Your task to perform on an android device: turn on data saver in the chrome app Image 0: 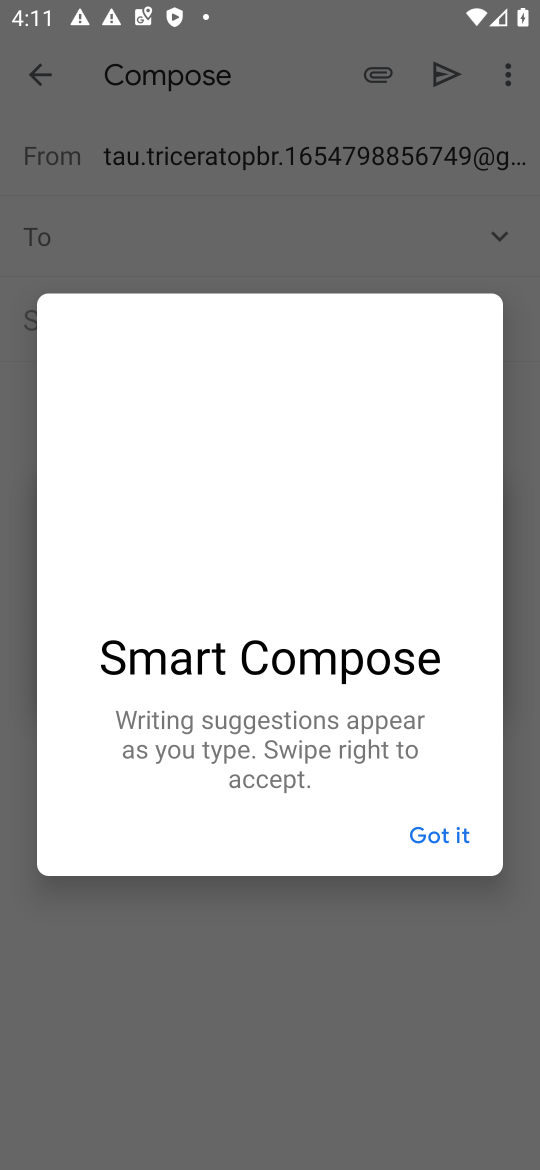
Step 0: press home button
Your task to perform on an android device: turn on data saver in the chrome app Image 1: 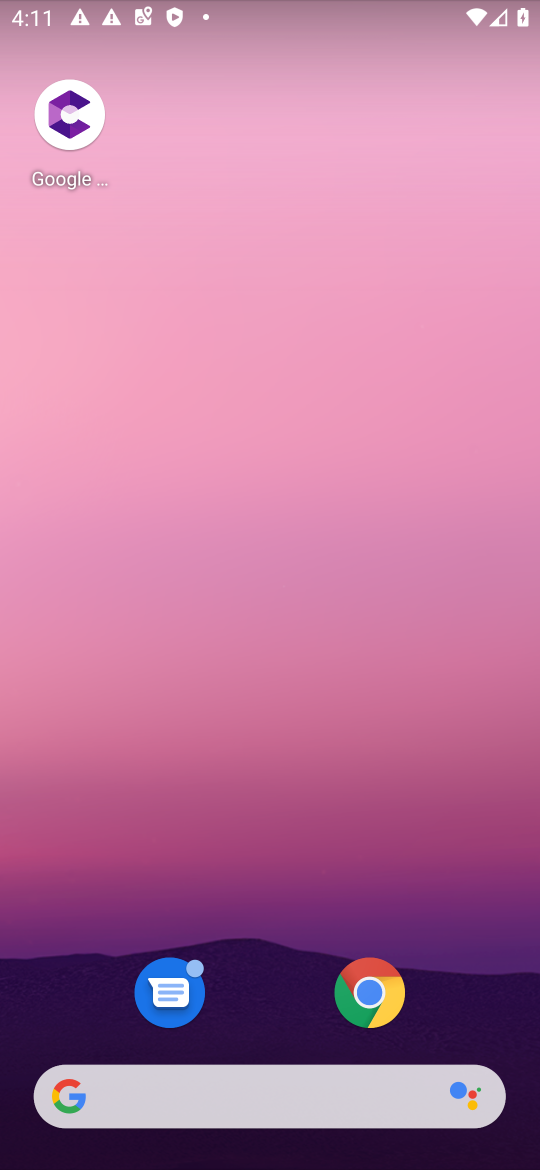
Step 1: drag from (249, 1108) to (168, 55)
Your task to perform on an android device: turn on data saver in the chrome app Image 2: 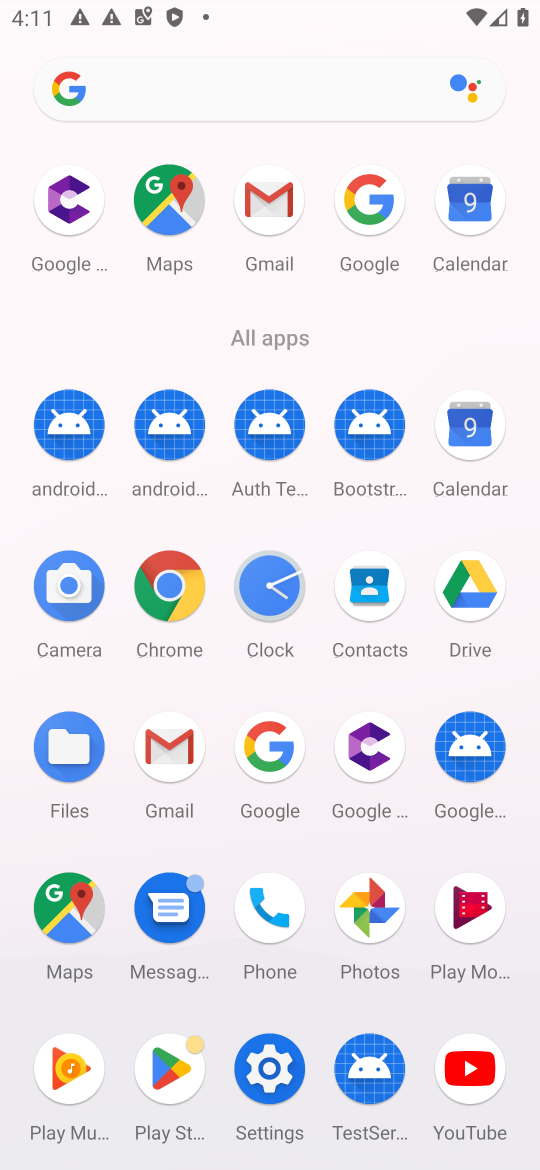
Step 2: click (156, 570)
Your task to perform on an android device: turn on data saver in the chrome app Image 3: 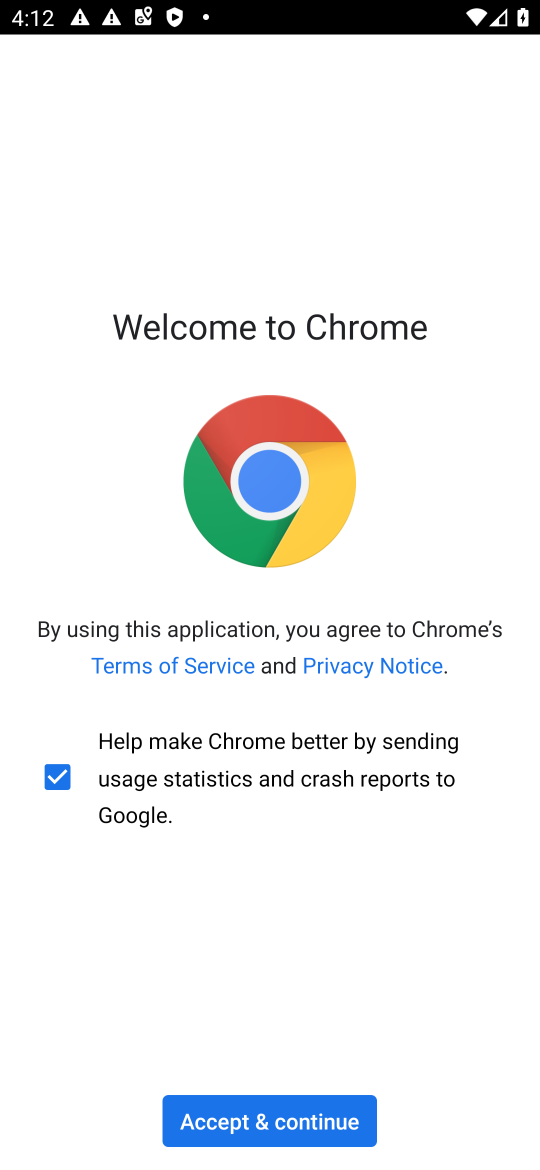
Step 3: click (262, 1139)
Your task to perform on an android device: turn on data saver in the chrome app Image 4: 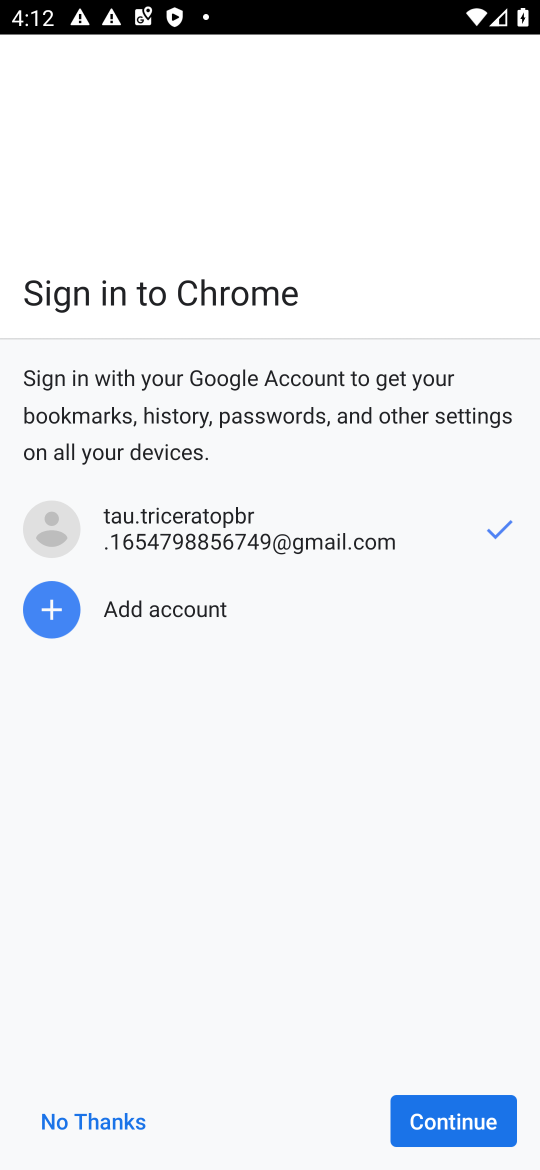
Step 4: click (112, 1114)
Your task to perform on an android device: turn on data saver in the chrome app Image 5: 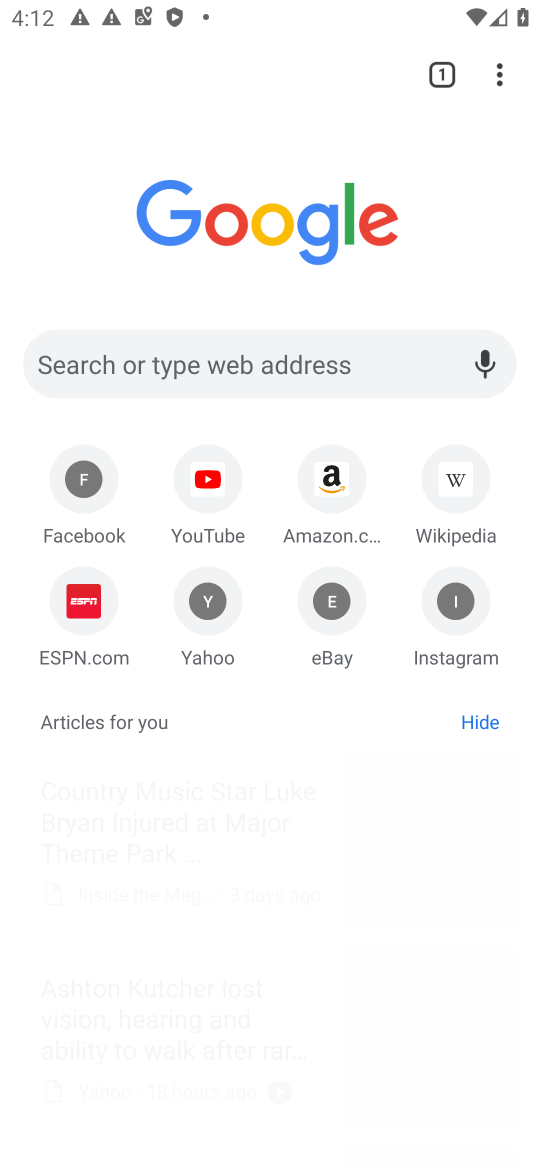
Step 5: click (505, 67)
Your task to perform on an android device: turn on data saver in the chrome app Image 6: 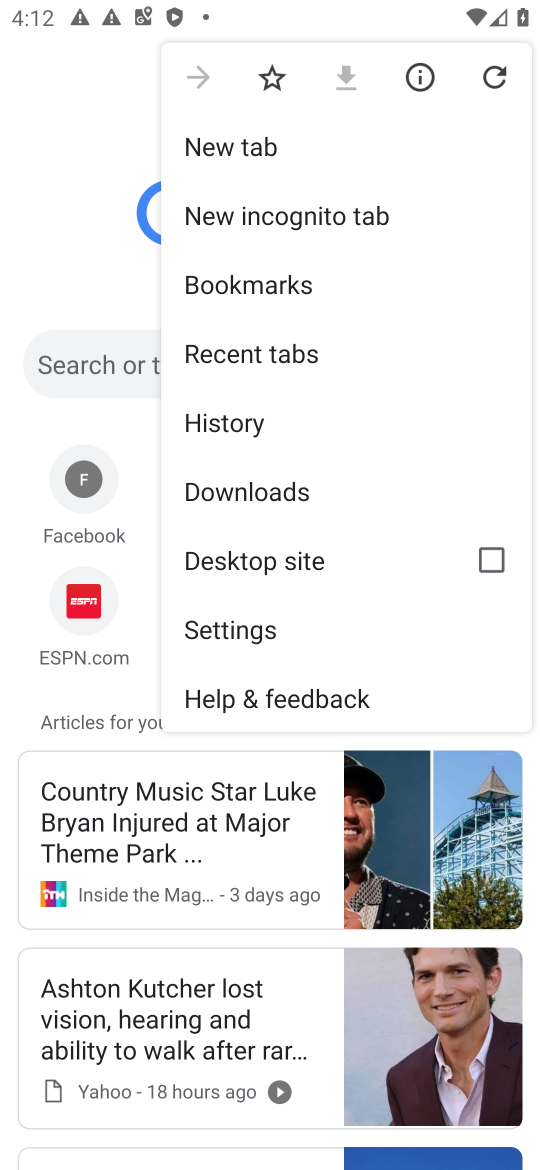
Step 6: click (225, 623)
Your task to perform on an android device: turn on data saver in the chrome app Image 7: 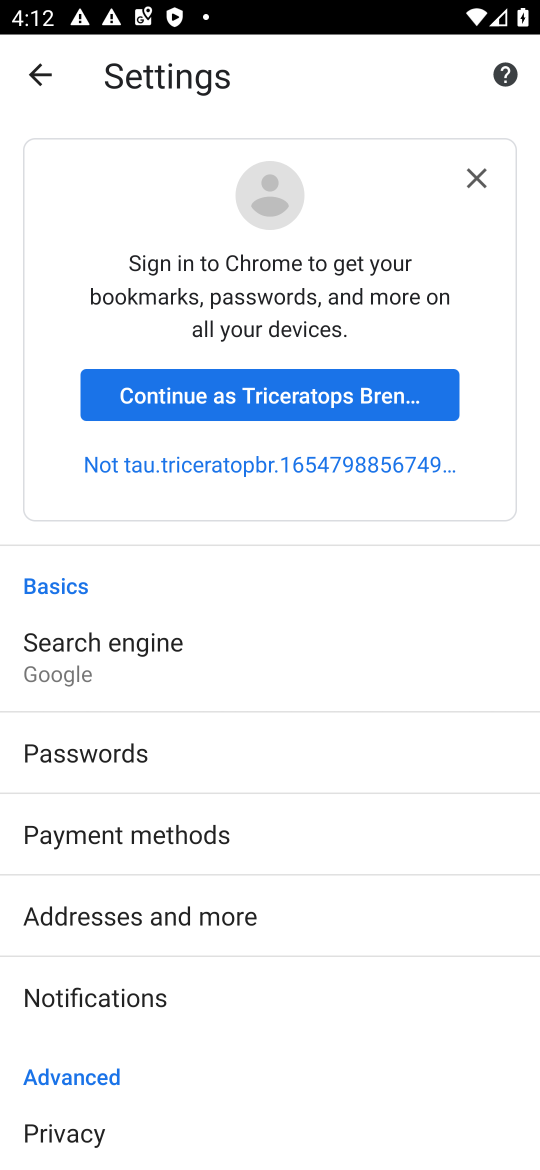
Step 7: drag from (413, 1065) to (404, 540)
Your task to perform on an android device: turn on data saver in the chrome app Image 8: 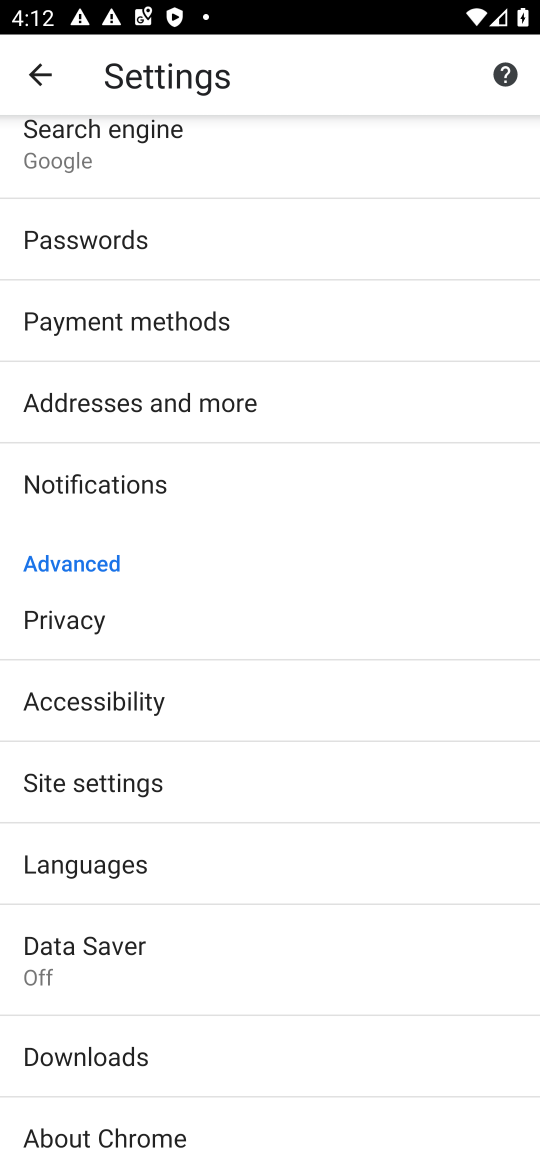
Step 8: click (139, 917)
Your task to perform on an android device: turn on data saver in the chrome app Image 9: 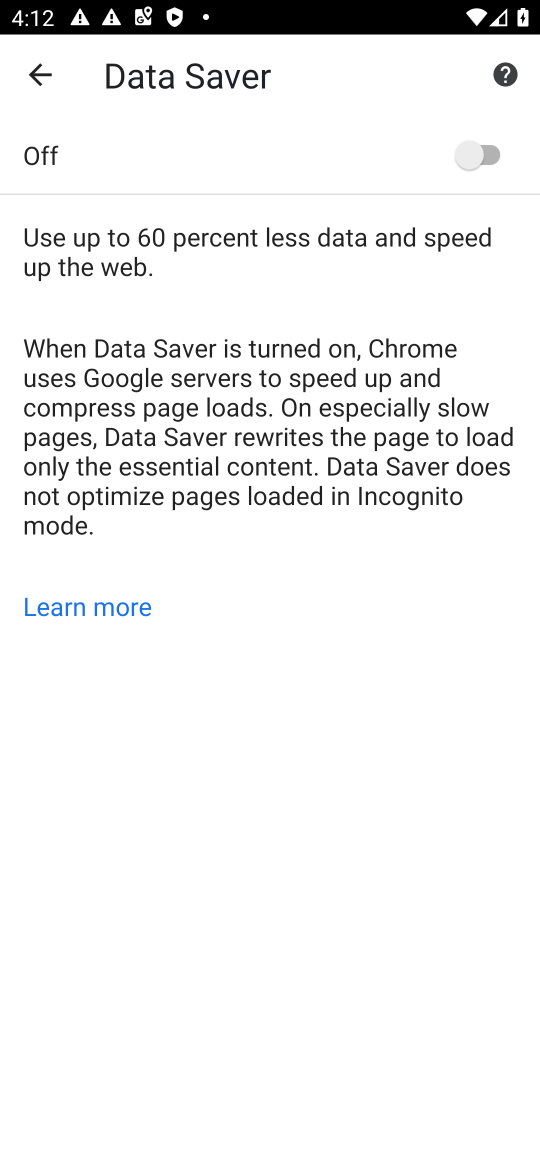
Step 9: click (489, 141)
Your task to perform on an android device: turn on data saver in the chrome app Image 10: 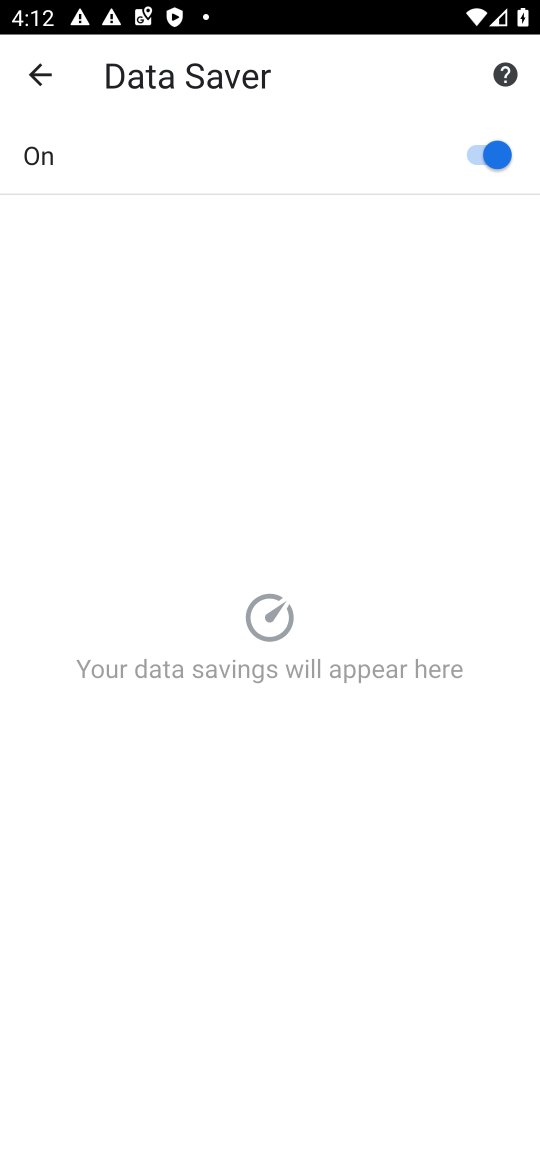
Step 10: task complete